Your task to perform on an android device: manage bookmarks in the chrome app Image 0: 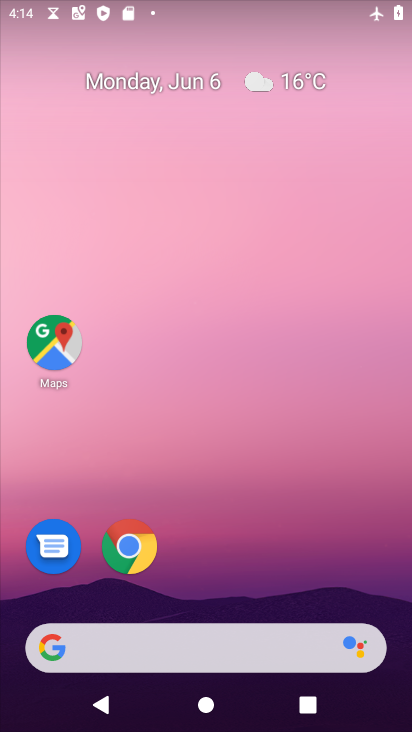
Step 0: drag from (312, 506) to (326, 0)
Your task to perform on an android device: manage bookmarks in the chrome app Image 1: 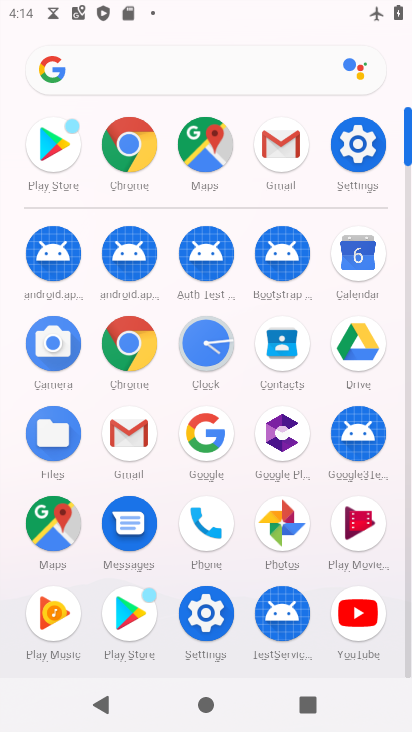
Step 1: click (130, 135)
Your task to perform on an android device: manage bookmarks in the chrome app Image 2: 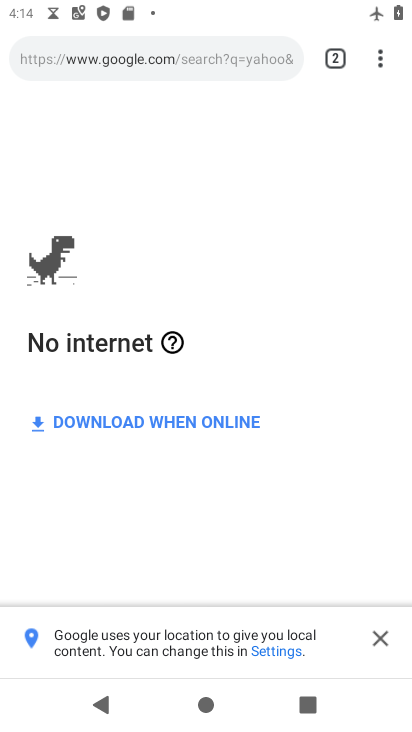
Step 2: drag from (378, 58) to (174, 219)
Your task to perform on an android device: manage bookmarks in the chrome app Image 3: 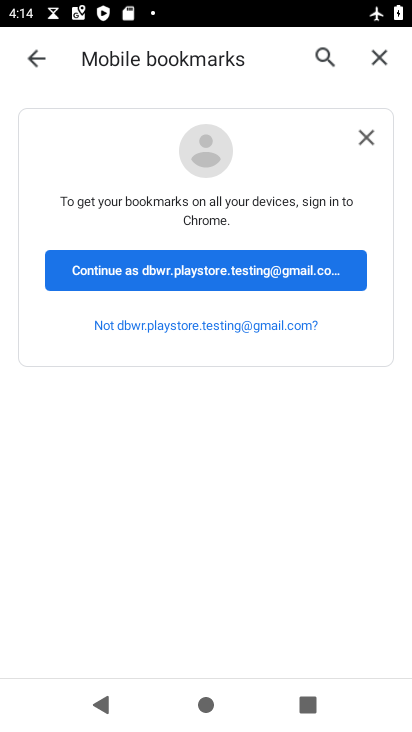
Step 3: click (119, 276)
Your task to perform on an android device: manage bookmarks in the chrome app Image 4: 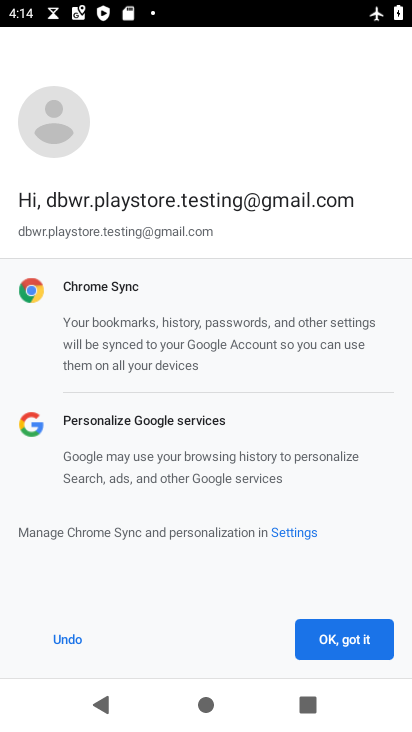
Step 4: click (341, 623)
Your task to perform on an android device: manage bookmarks in the chrome app Image 5: 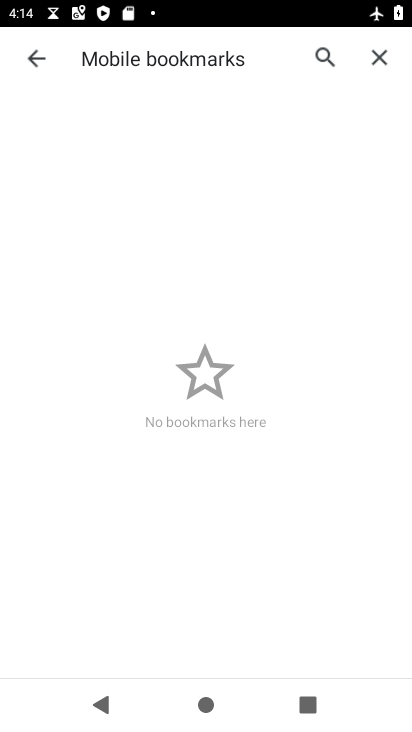
Step 5: task complete